Your task to perform on an android device: Show me productivity apps on the Play Store Image 0: 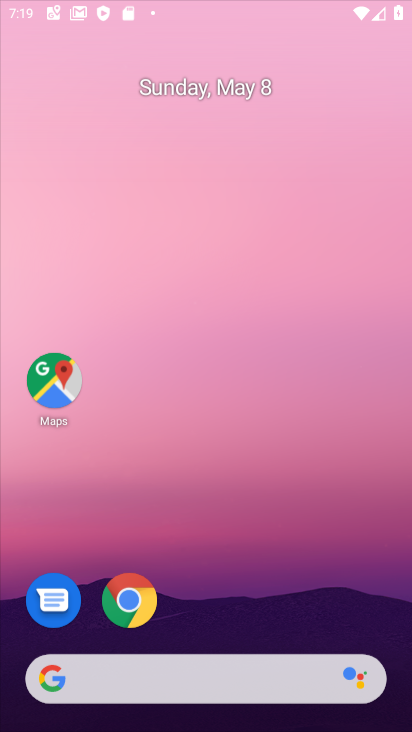
Step 0: press home button
Your task to perform on an android device: Show me productivity apps on the Play Store Image 1: 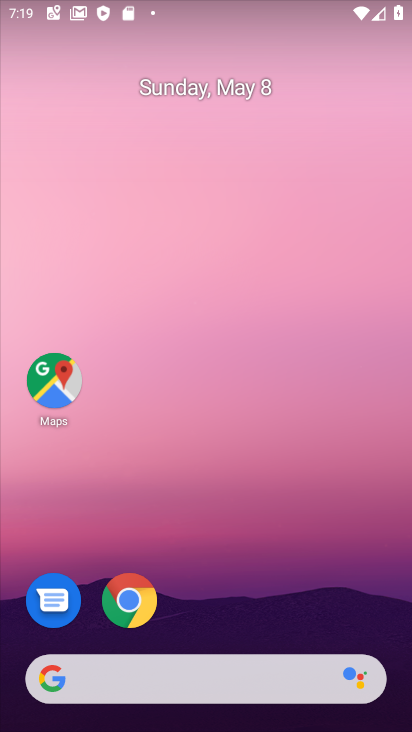
Step 1: drag from (220, 722) to (139, 343)
Your task to perform on an android device: Show me productivity apps on the Play Store Image 2: 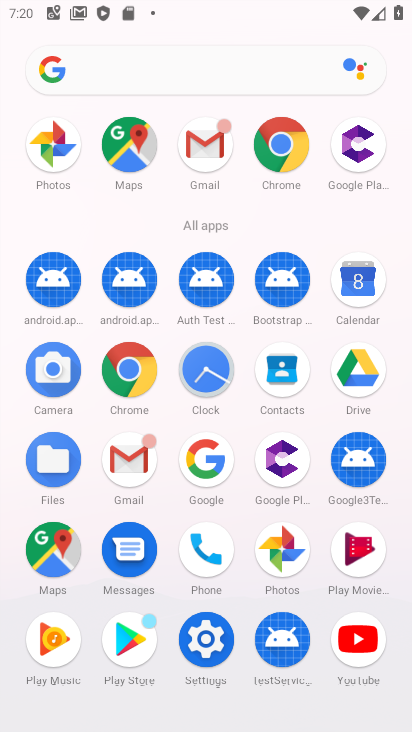
Step 2: click (147, 642)
Your task to perform on an android device: Show me productivity apps on the Play Store Image 3: 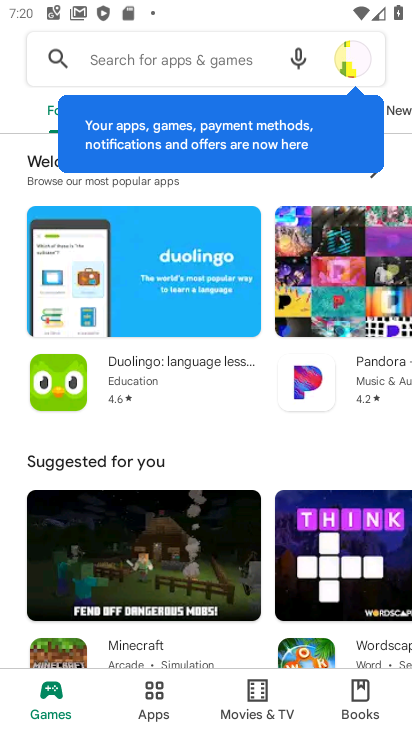
Step 3: click (127, 62)
Your task to perform on an android device: Show me productivity apps on the Play Store Image 4: 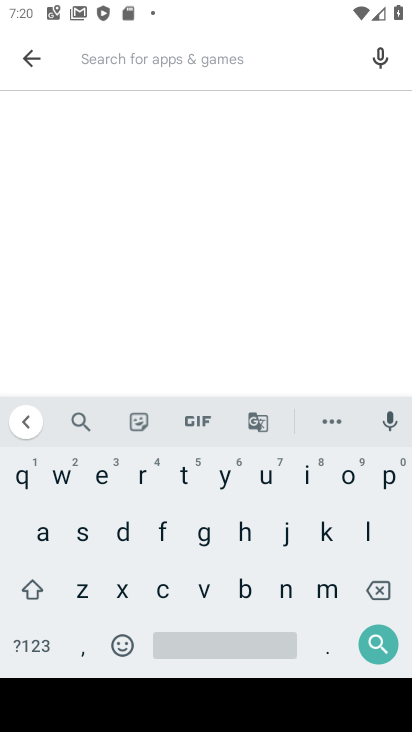
Step 4: click (381, 478)
Your task to perform on an android device: Show me productivity apps on the Play Store Image 5: 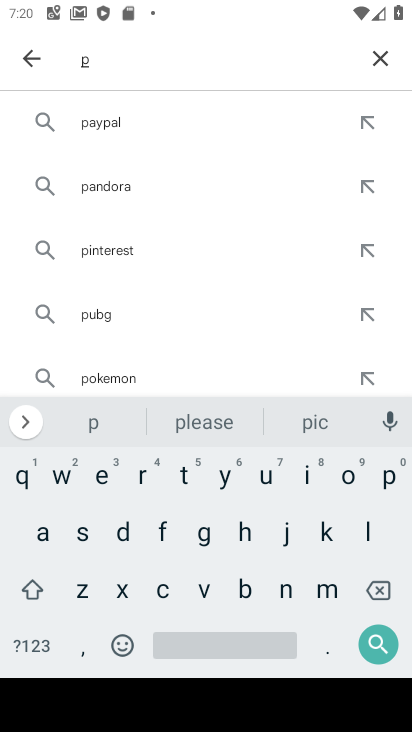
Step 5: click (344, 473)
Your task to perform on an android device: Show me productivity apps on the Play Store Image 6: 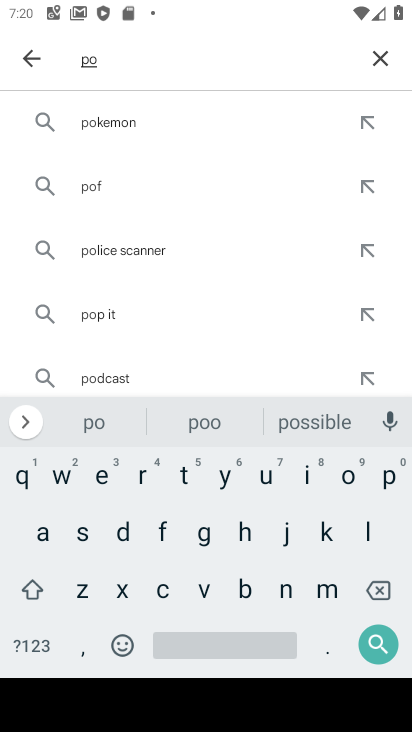
Step 6: click (396, 479)
Your task to perform on an android device: Show me productivity apps on the Play Store Image 7: 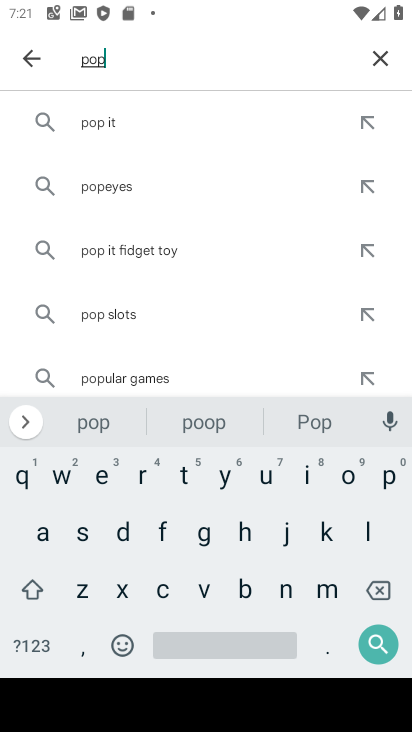
Step 7: click (263, 469)
Your task to perform on an android device: Show me productivity apps on the Play Store Image 8: 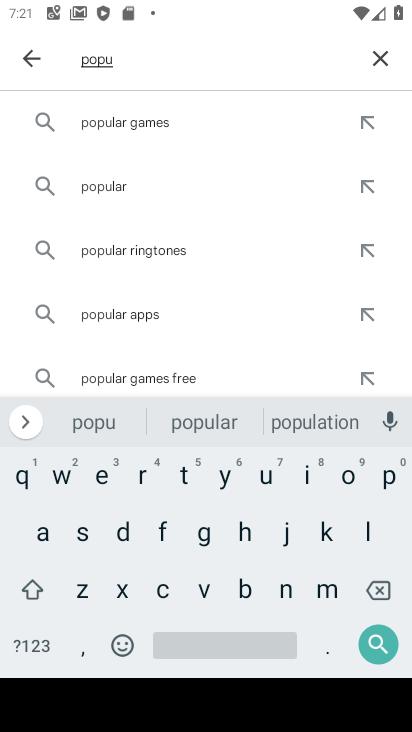
Step 8: click (375, 583)
Your task to perform on an android device: Show me productivity apps on the Play Store Image 9: 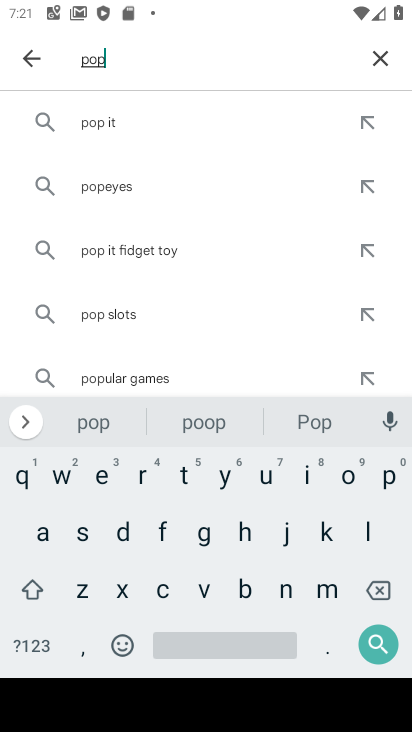
Step 9: click (375, 583)
Your task to perform on an android device: Show me productivity apps on the Play Store Image 10: 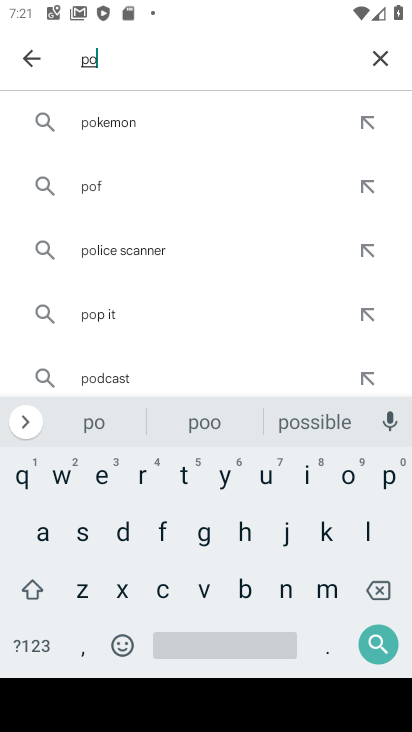
Step 10: click (375, 583)
Your task to perform on an android device: Show me productivity apps on the Play Store Image 11: 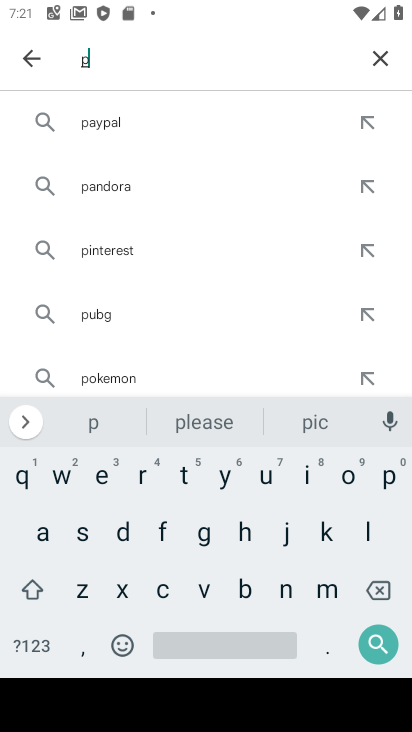
Step 11: click (143, 474)
Your task to perform on an android device: Show me productivity apps on the Play Store Image 12: 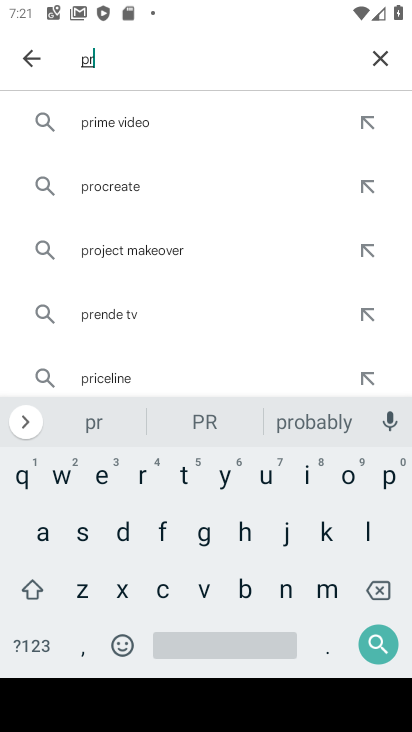
Step 12: click (346, 479)
Your task to perform on an android device: Show me productivity apps on the Play Store Image 13: 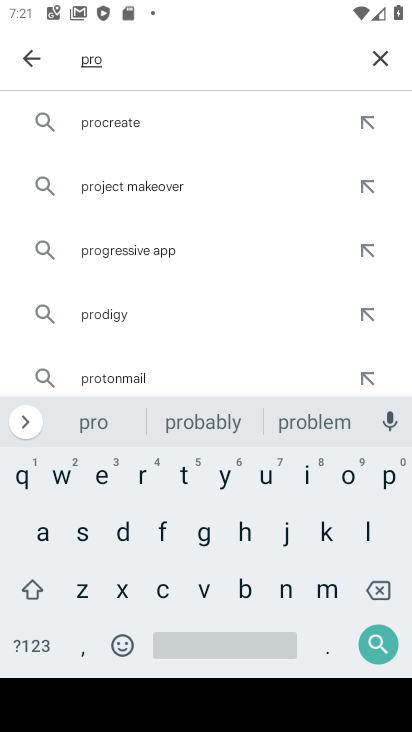
Step 13: click (121, 532)
Your task to perform on an android device: Show me productivity apps on the Play Store Image 14: 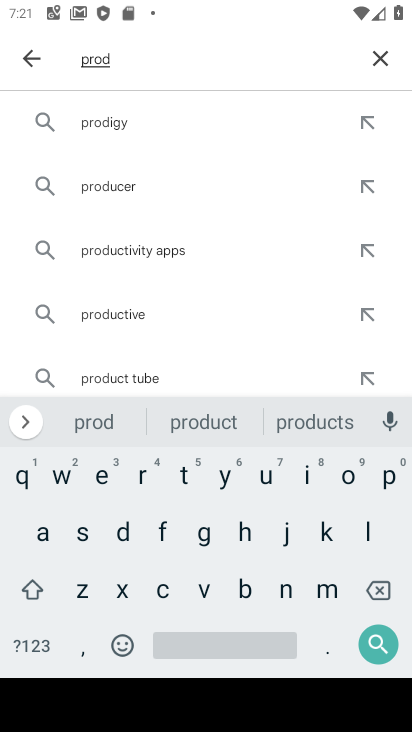
Step 14: click (120, 259)
Your task to perform on an android device: Show me productivity apps on the Play Store Image 15: 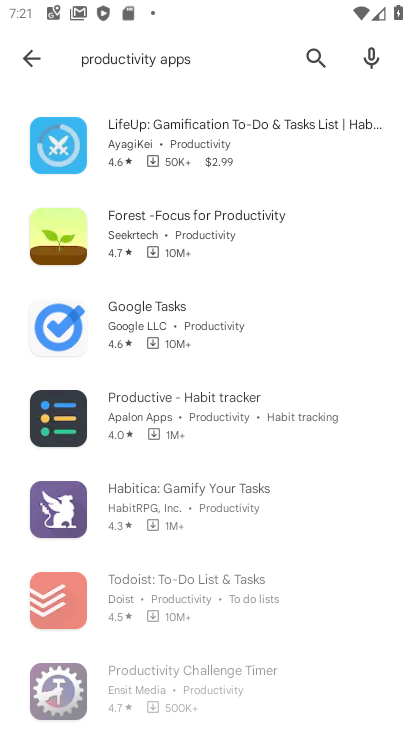
Step 15: click (120, 259)
Your task to perform on an android device: Show me productivity apps on the Play Store Image 16: 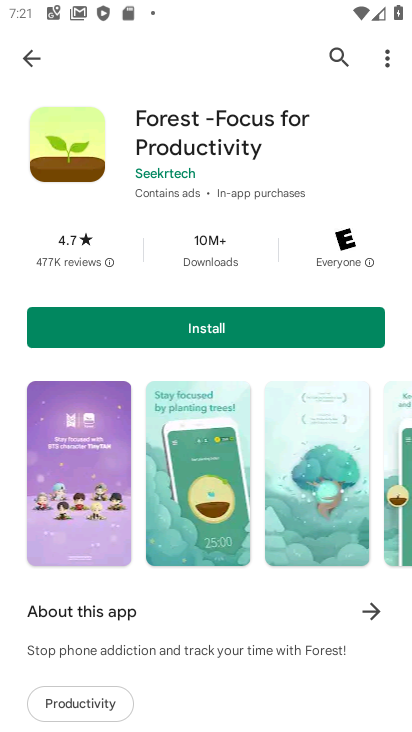
Step 16: click (22, 76)
Your task to perform on an android device: Show me productivity apps on the Play Store Image 17: 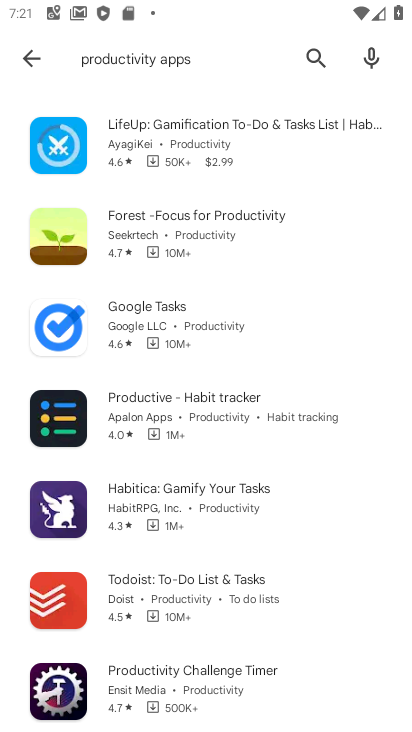
Step 17: task complete